Your task to perform on an android device: toggle pop-ups in chrome Image 0: 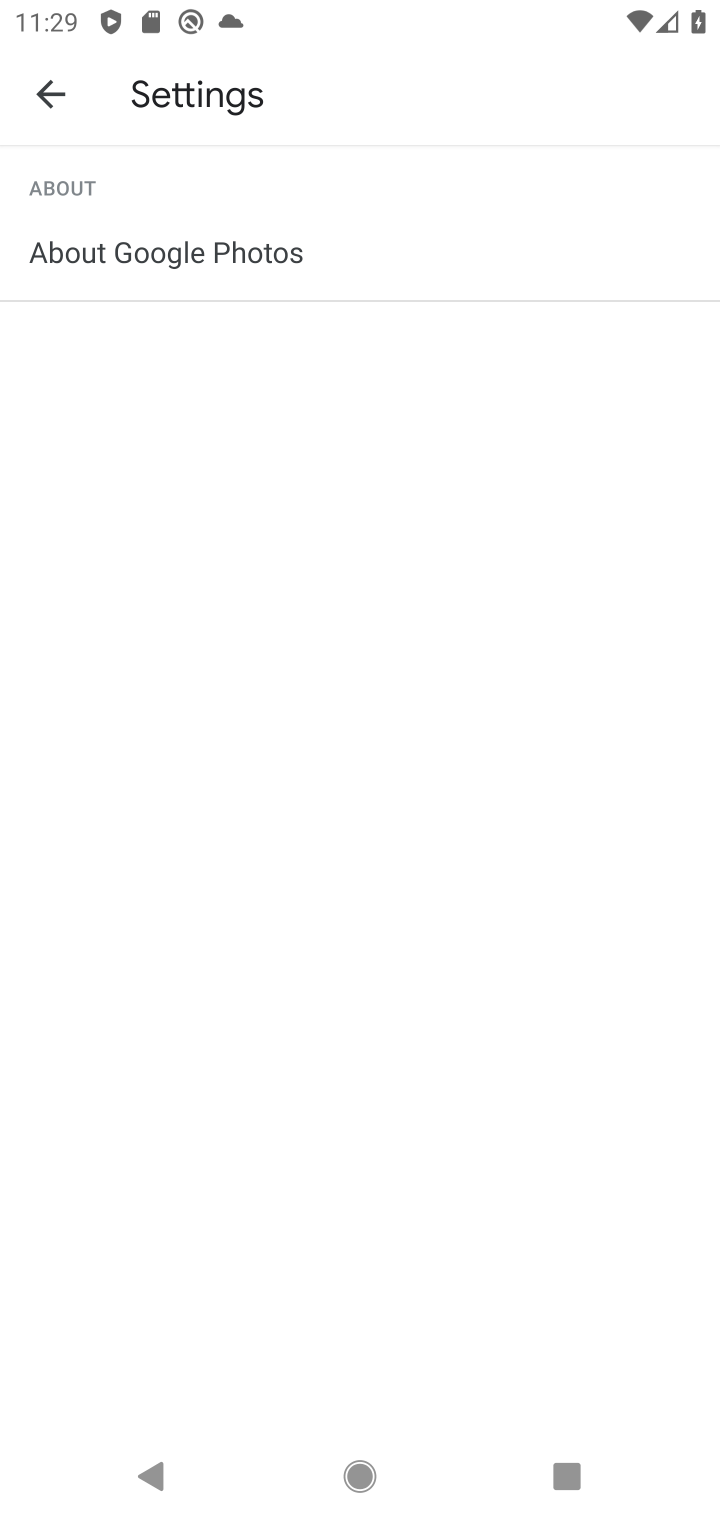
Step 0: press home button
Your task to perform on an android device: toggle pop-ups in chrome Image 1: 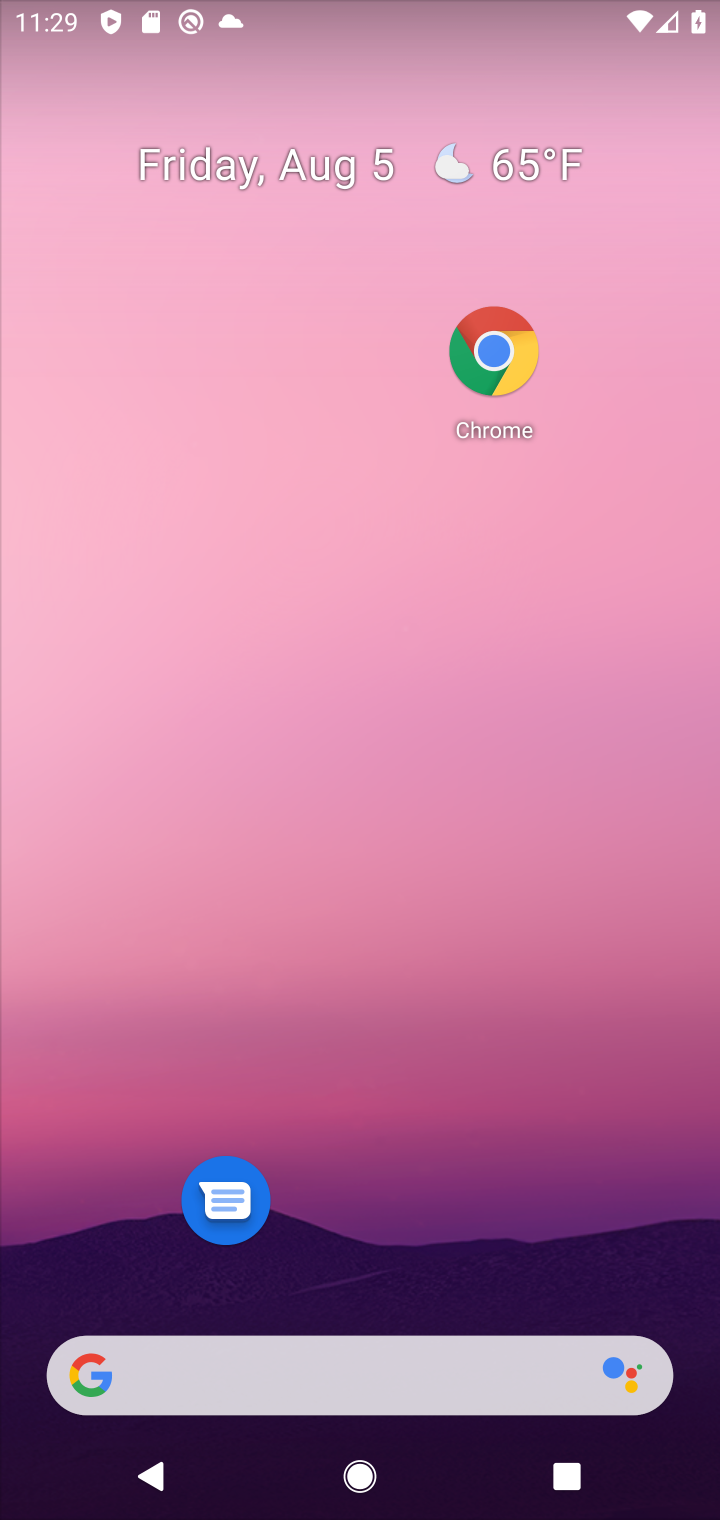
Step 1: drag from (357, 1334) to (430, 293)
Your task to perform on an android device: toggle pop-ups in chrome Image 2: 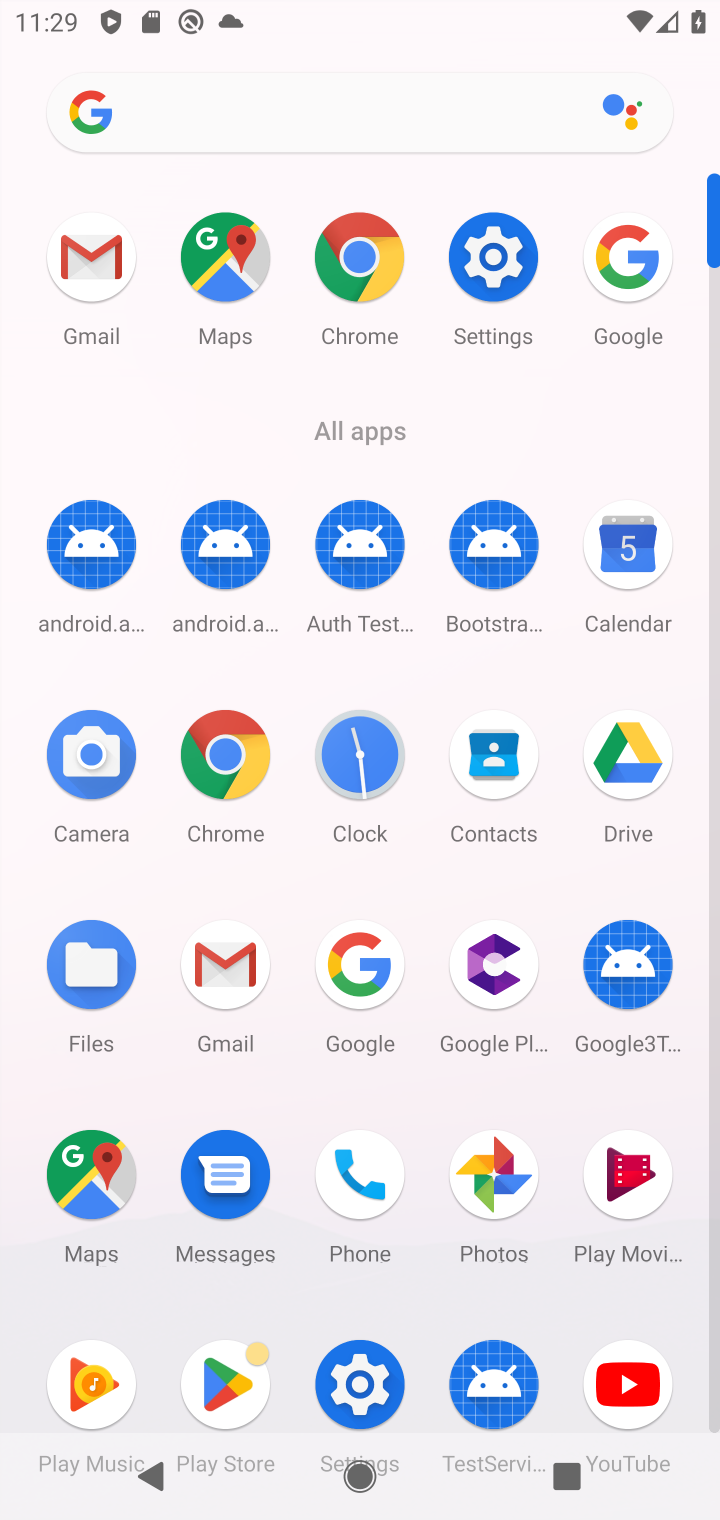
Step 2: click (360, 225)
Your task to perform on an android device: toggle pop-ups in chrome Image 3: 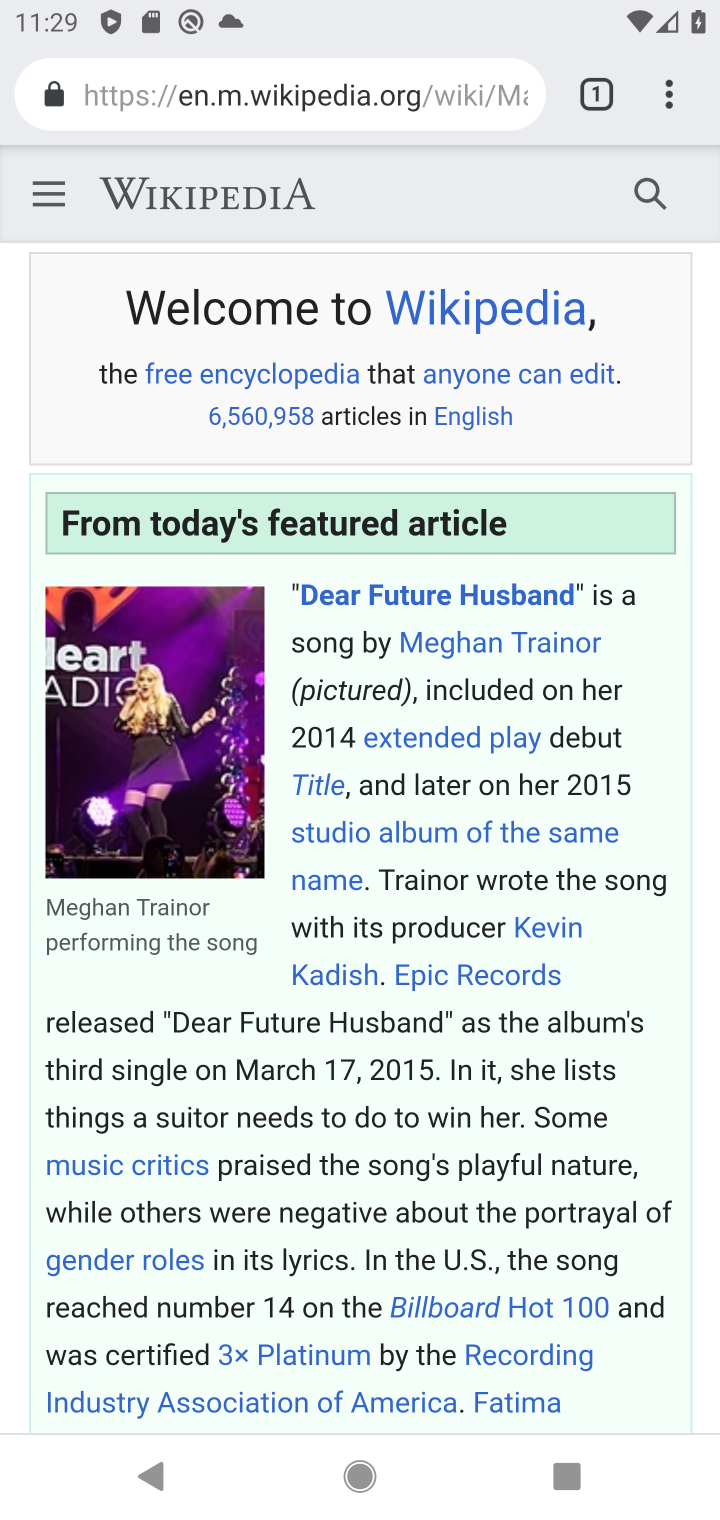
Step 3: click (672, 125)
Your task to perform on an android device: toggle pop-ups in chrome Image 4: 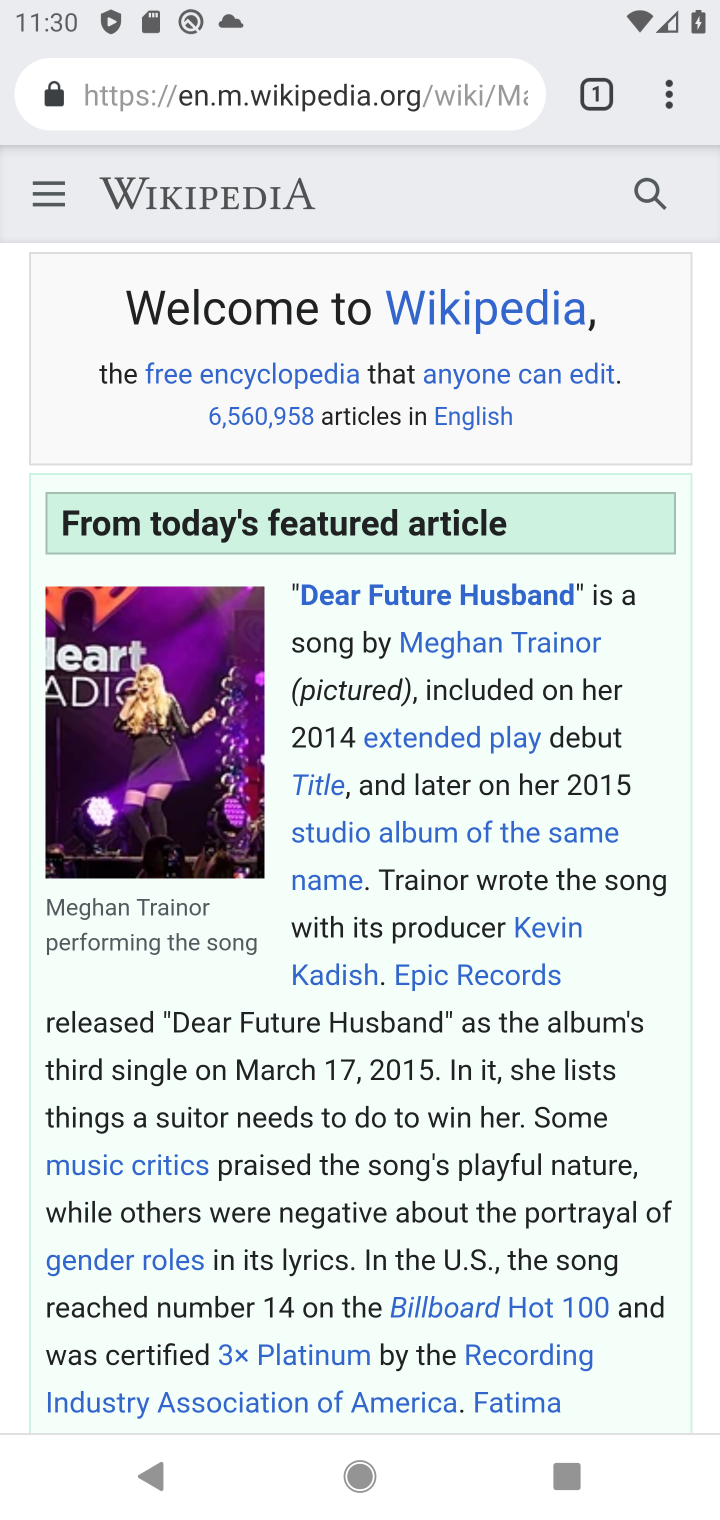
Step 4: click (676, 106)
Your task to perform on an android device: toggle pop-ups in chrome Image 5: 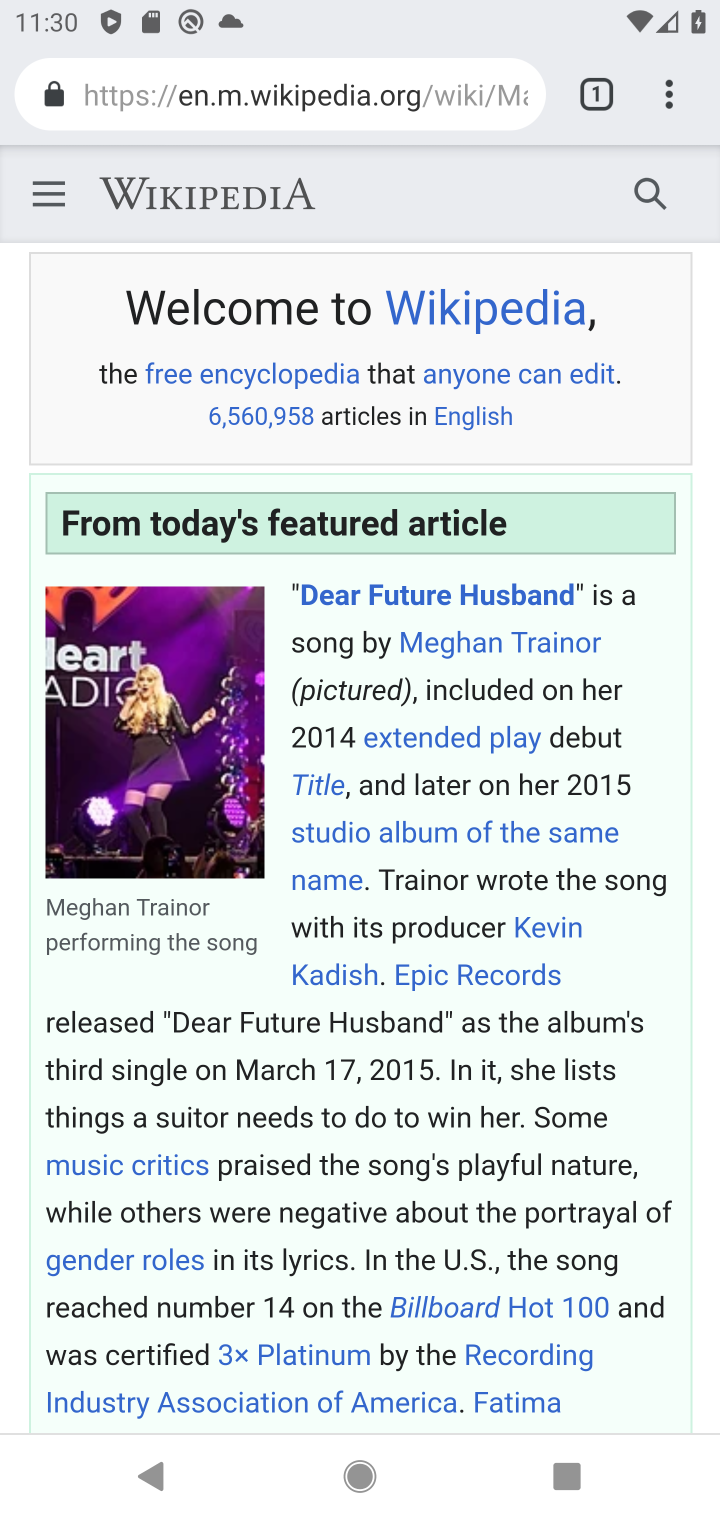
Step 5: click (674, 100)
Your task to perform on an android device: toggle pop-ups in chrome Image 6: 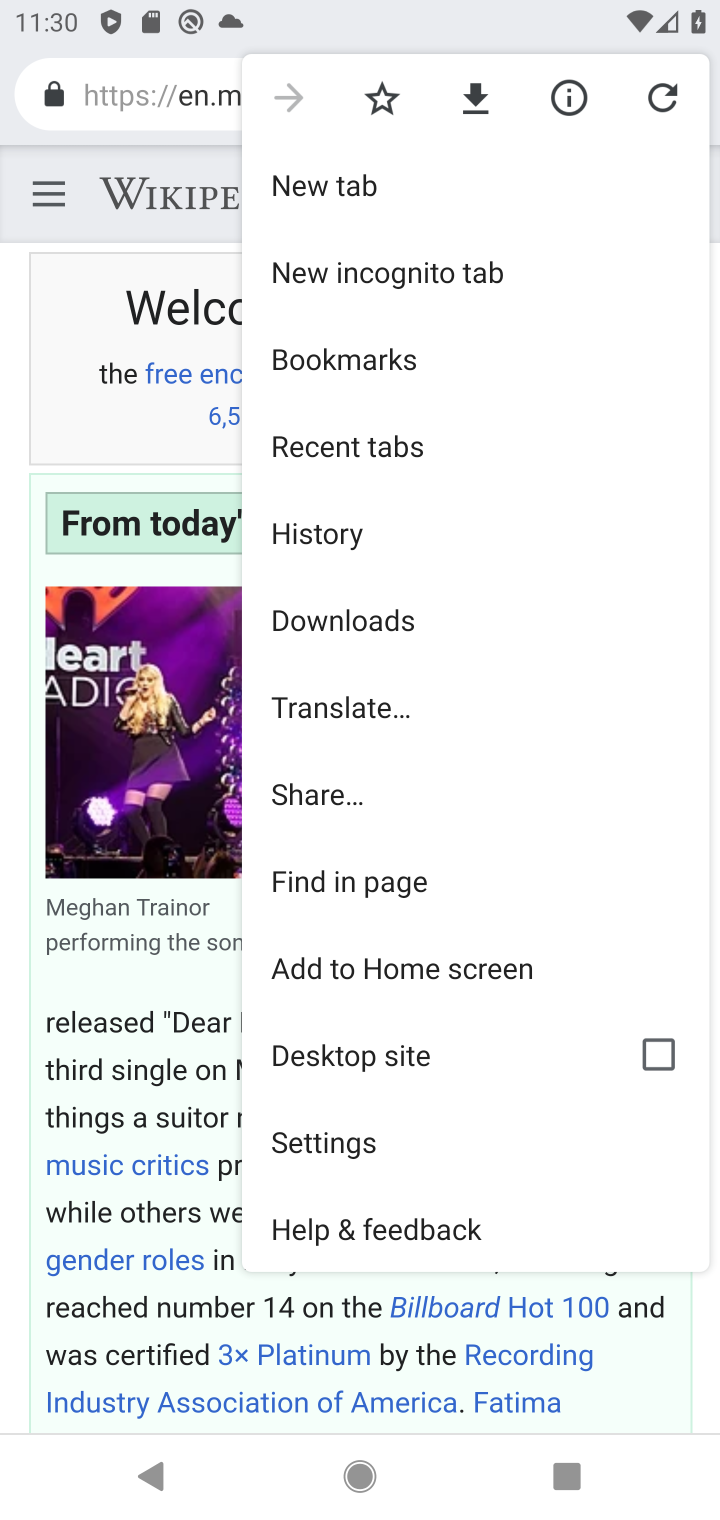
Step 6: drag from (369, 1153) to (392, 1297)
Your task to perform on an android device: toggle pop-ups in chrome Image 7: 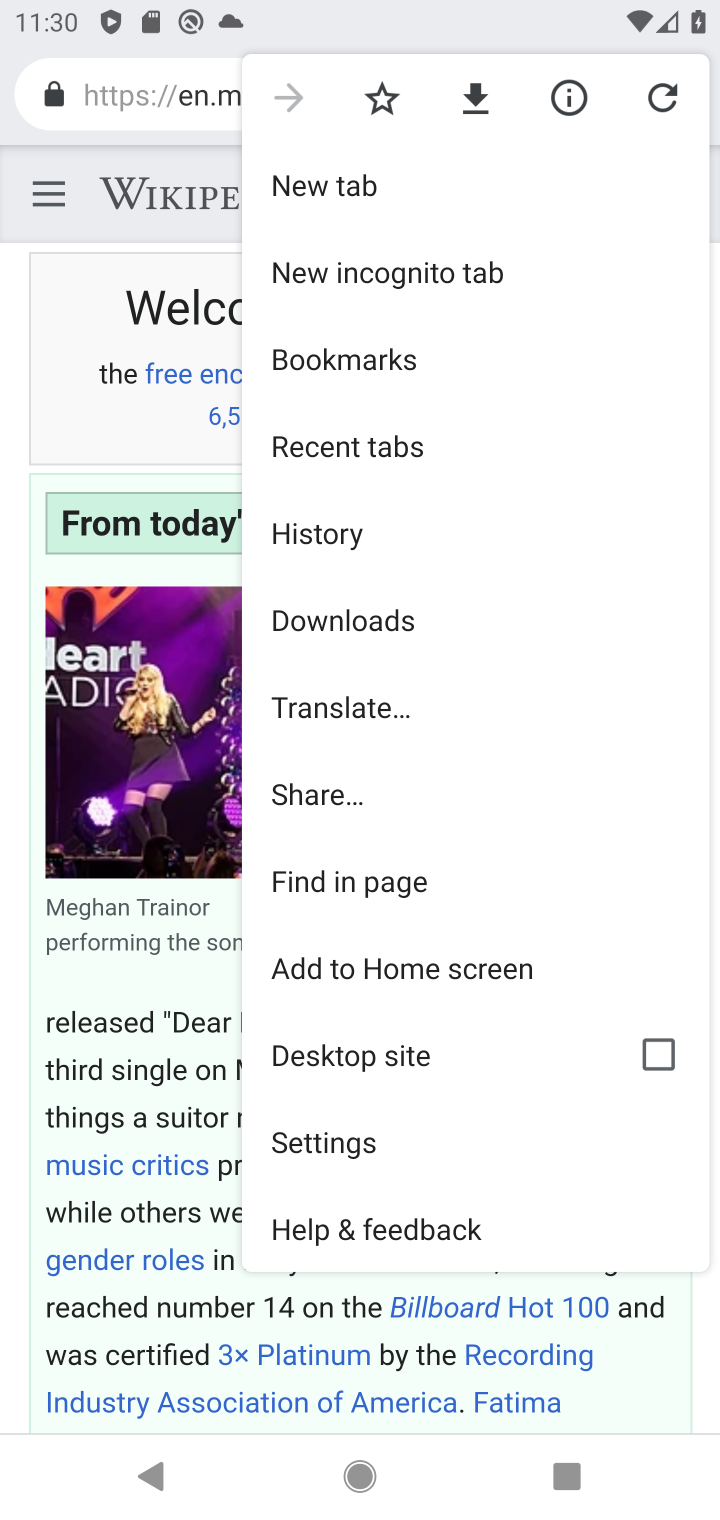
Step 7: click (380, 1127)
Your task to perform on an android device: toggle pop-ups in chrome Image 8: 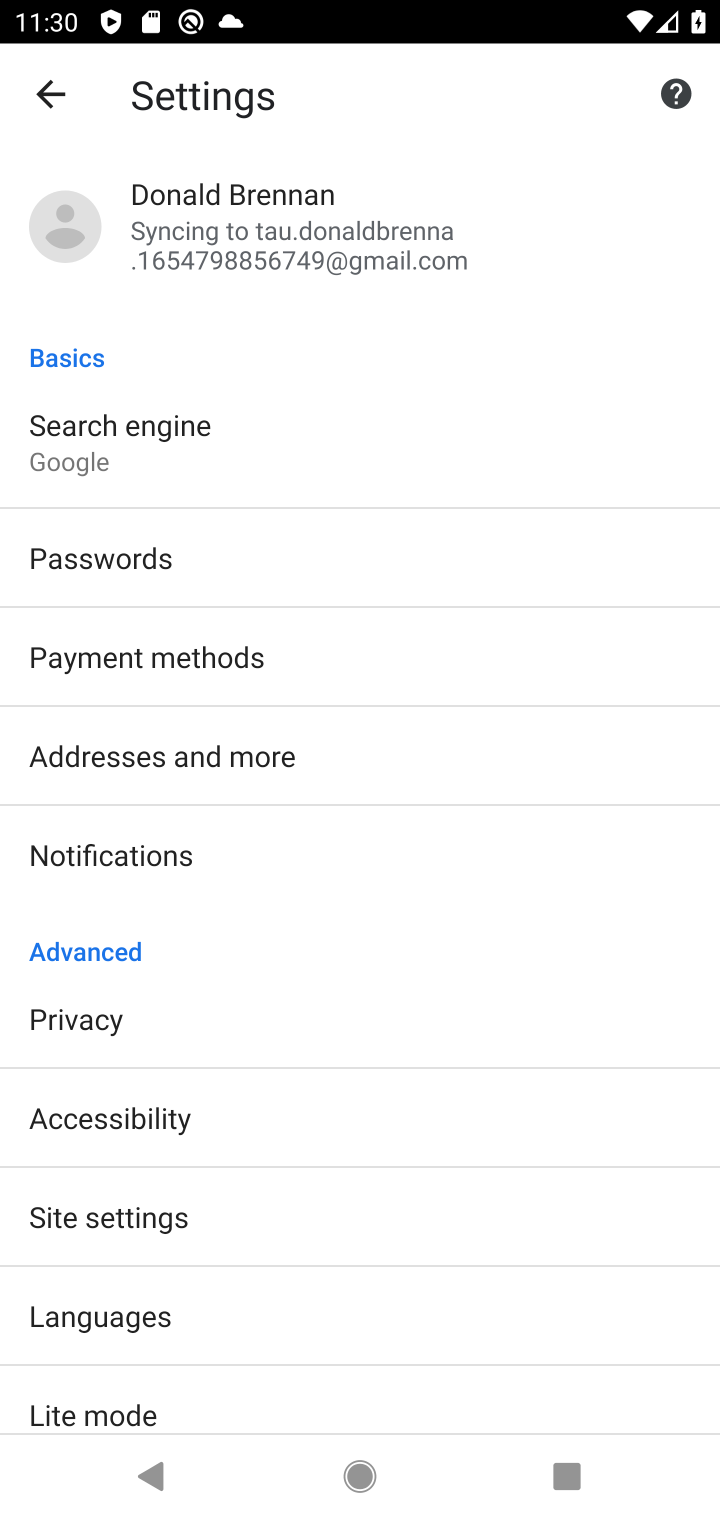
Step 8: drag from (391, 1179) to (477, 370)
Your task to perform on an android device: toggle pop-ups in chrome Image 9: 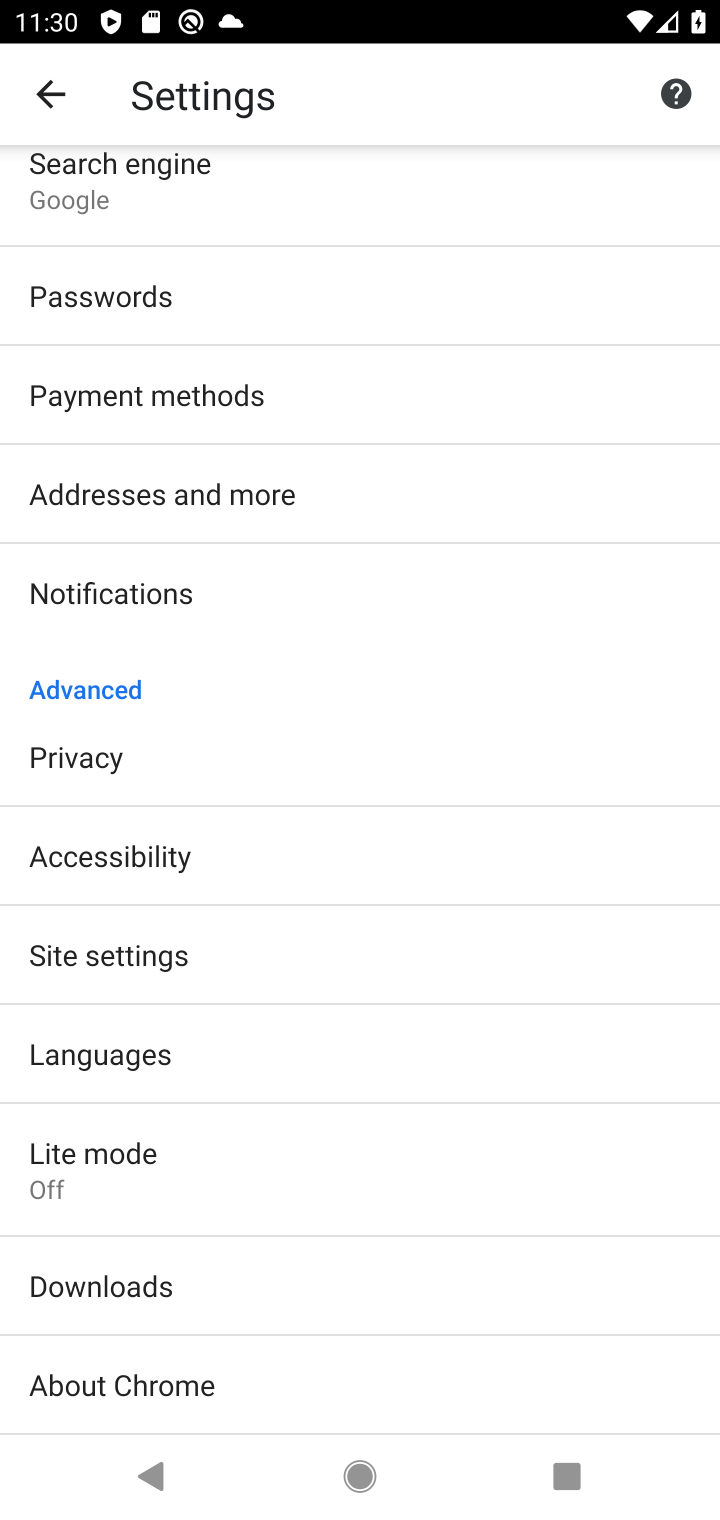
Step 9: drag from (460, 1128) to (550, 291)
Your task to perform on an android device: toggle pop-ups in chrome Image 10: 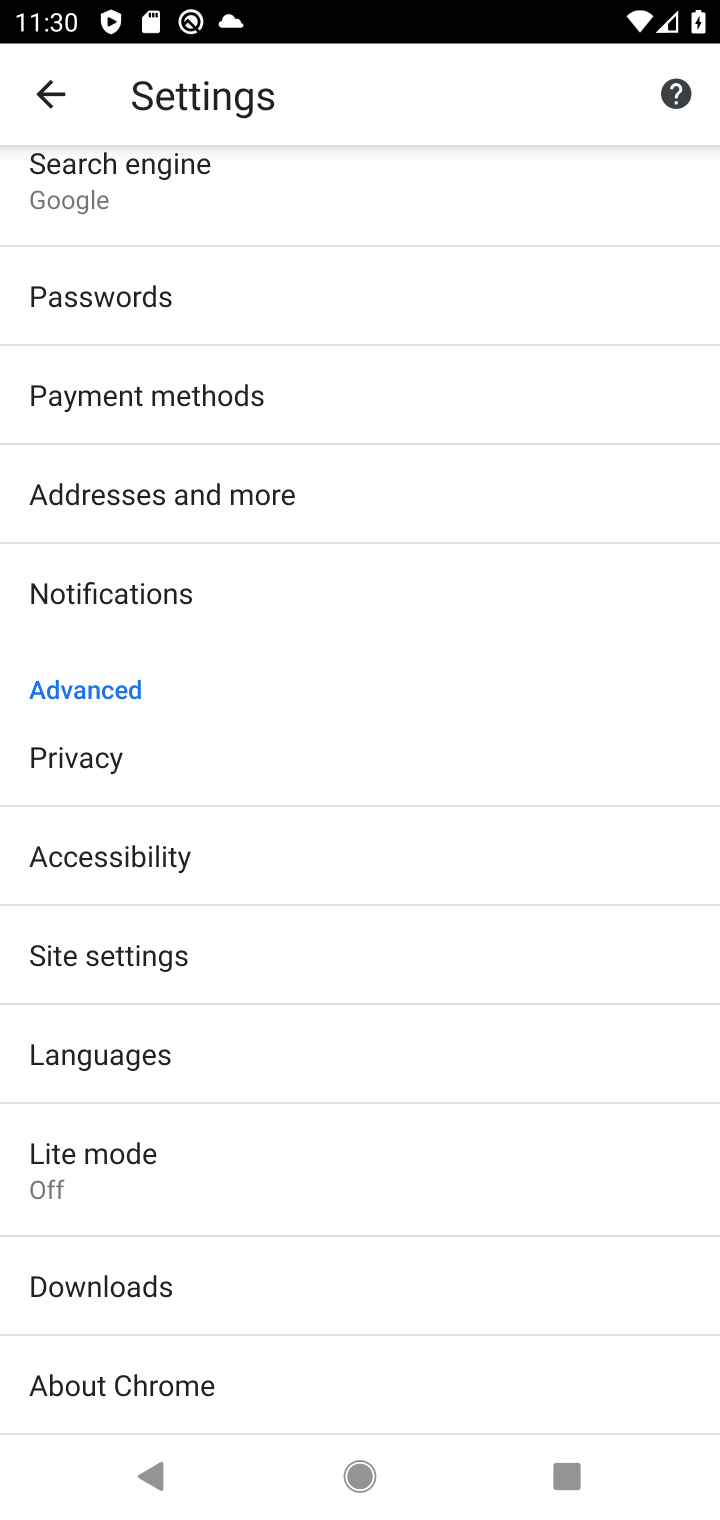
Step 10: click (237, 963)
Your task to perform on an android device: toggle pop-ups in chrome Image 11: 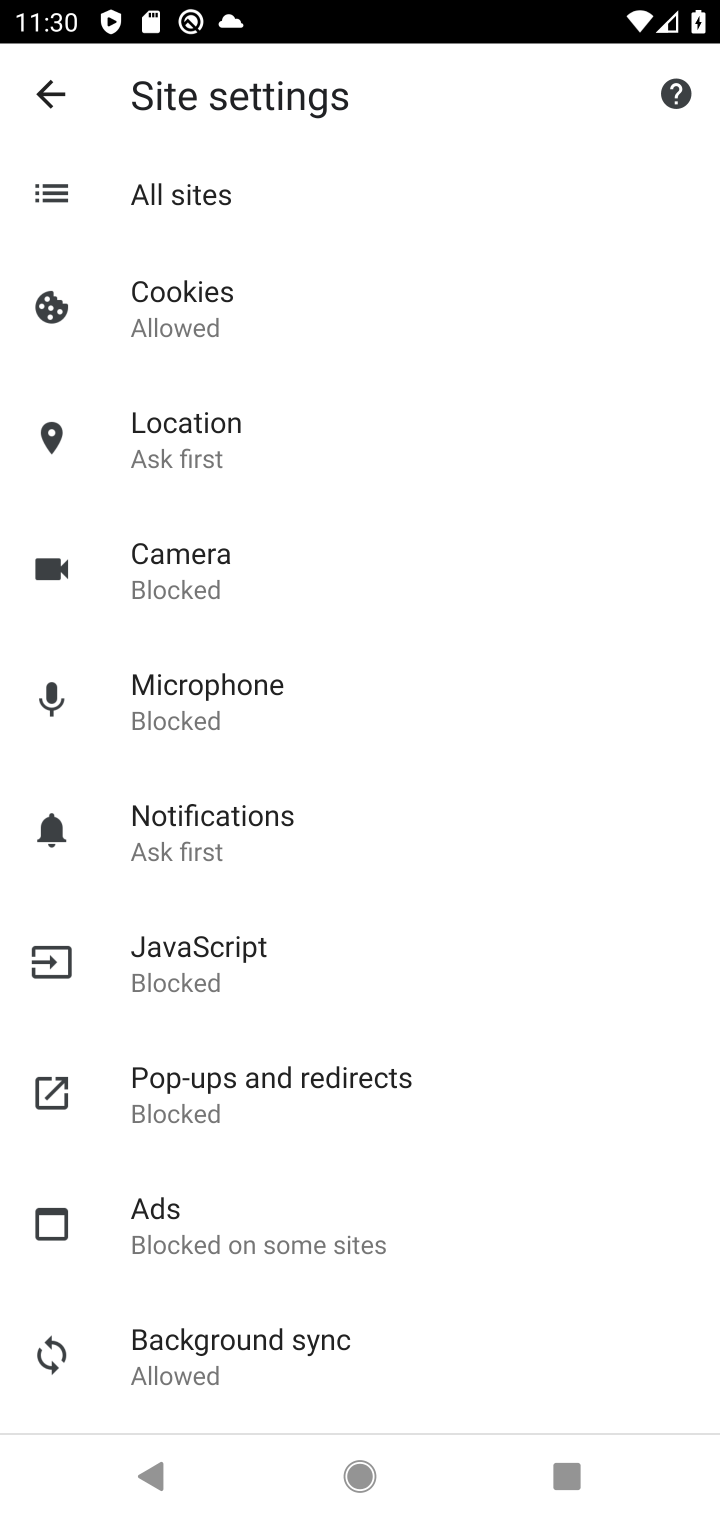
Step 11: click (303, 1093)
Your task to perform on an android device: toggle pop-ups in chrome Image 12: 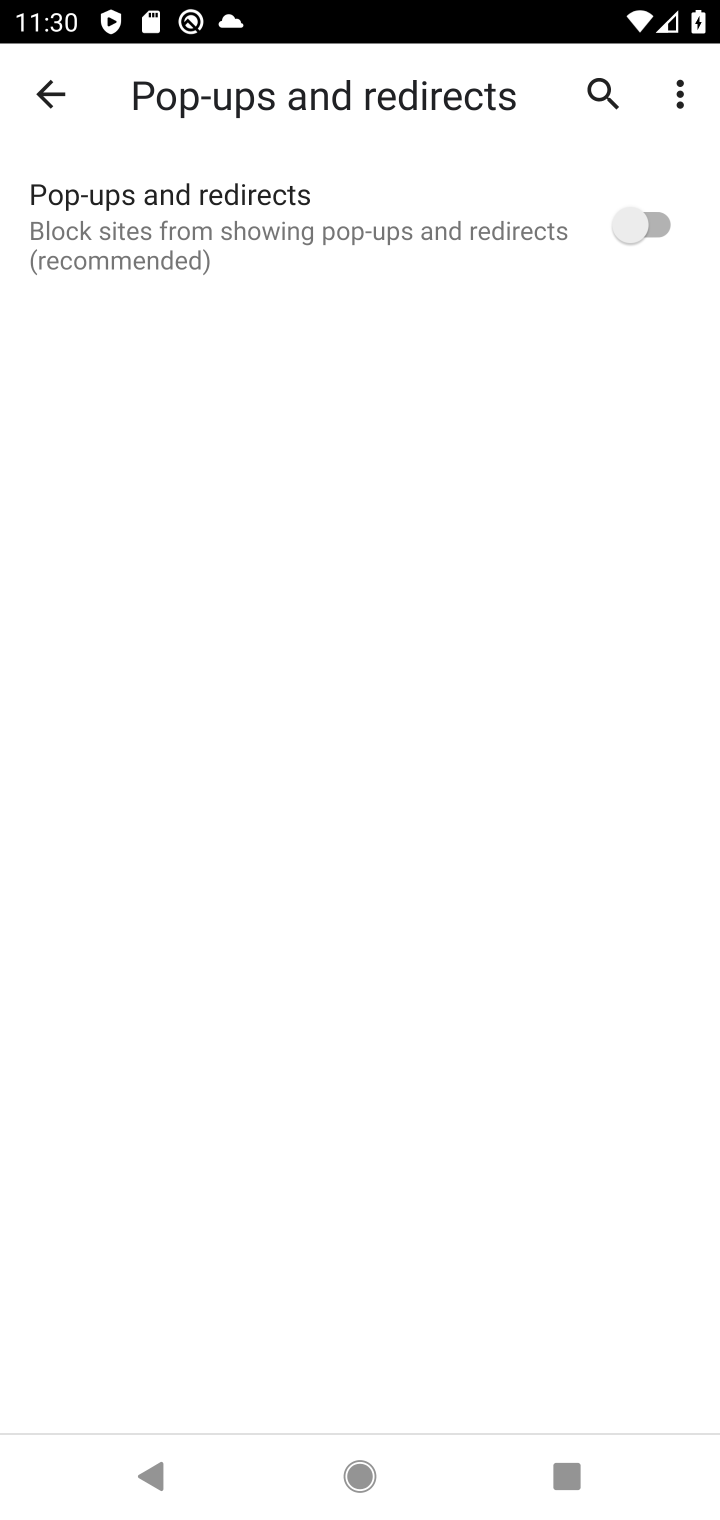
Step 12: click (645, 213)
Your task to perform on an android device: toggle pop-ups in chrome Image 13: 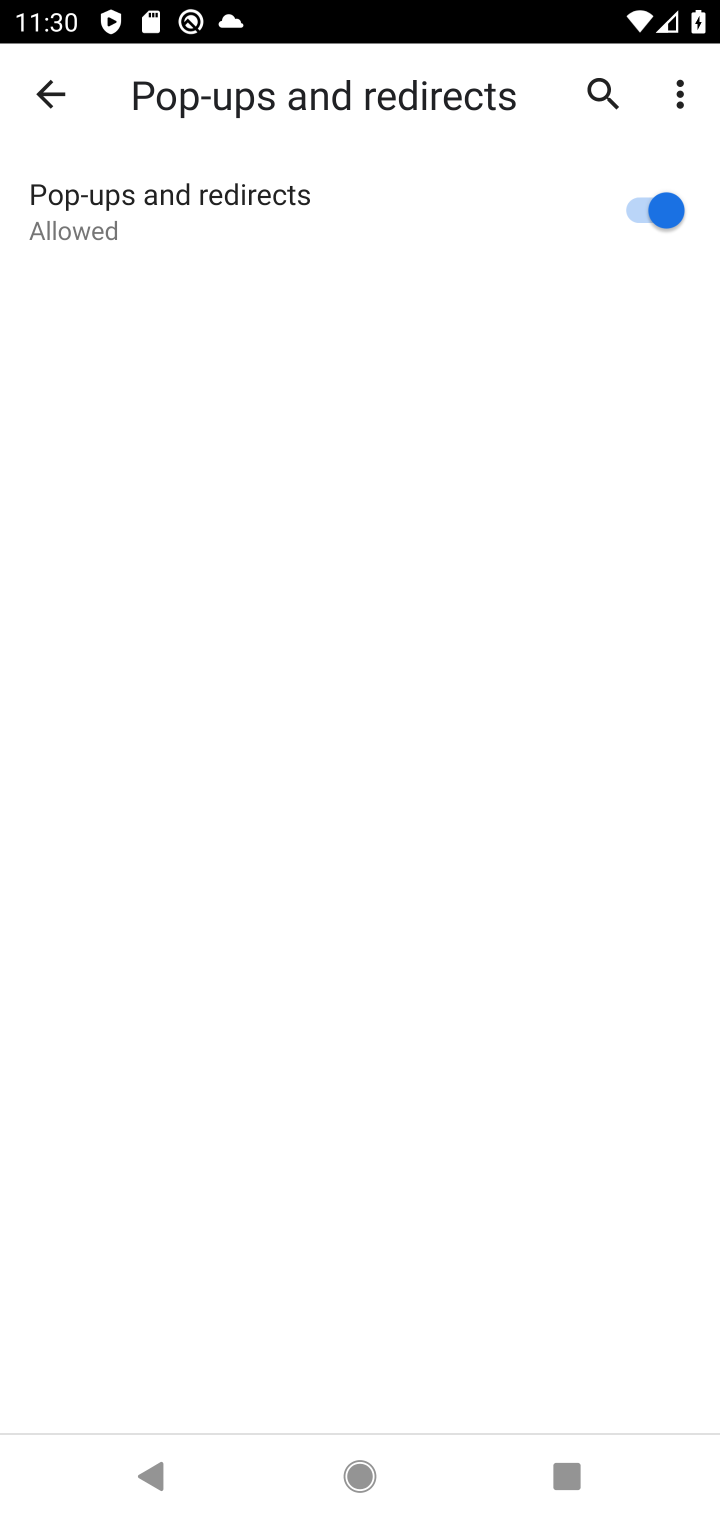
Step 13: task complete